Your task to perform on an android device: Open maps Image 0: 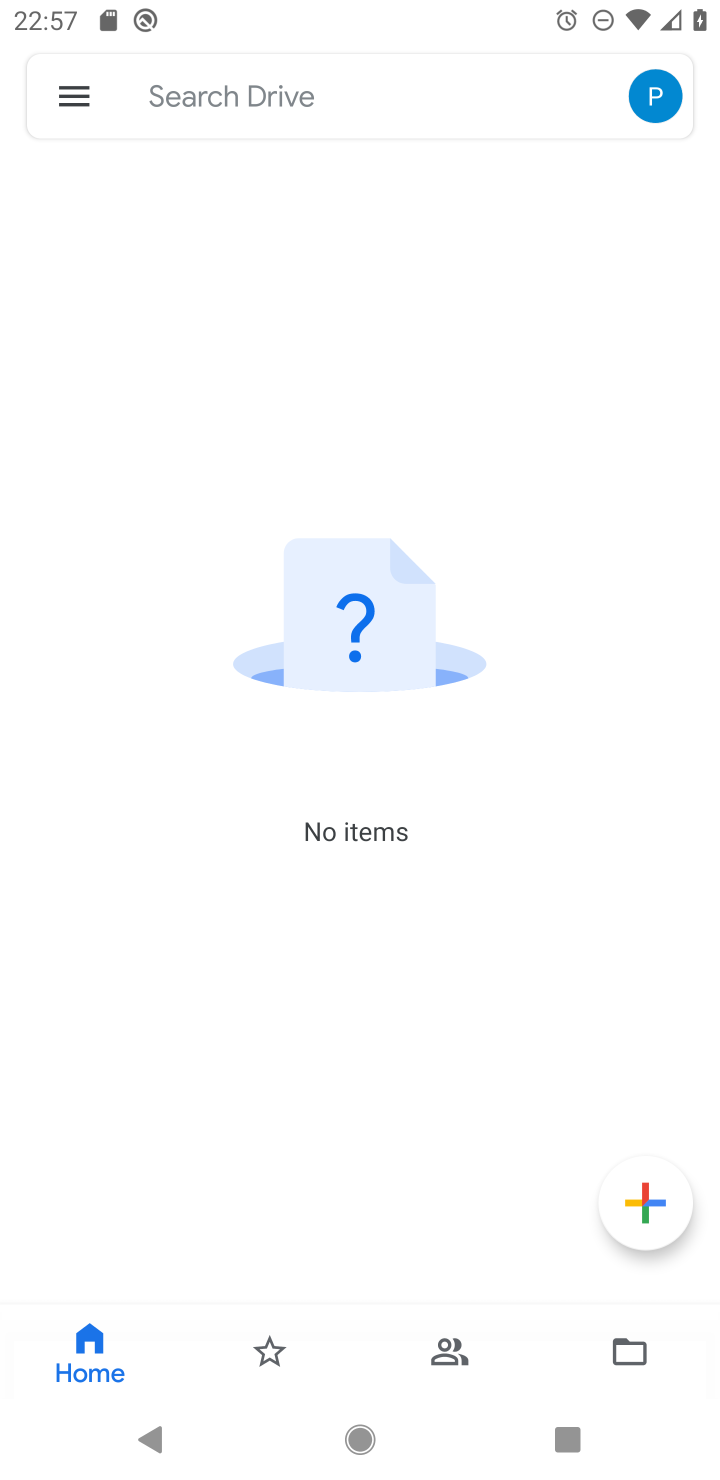
Step 0: press home button
Your task to perform on an android device: Open maps Image 1: 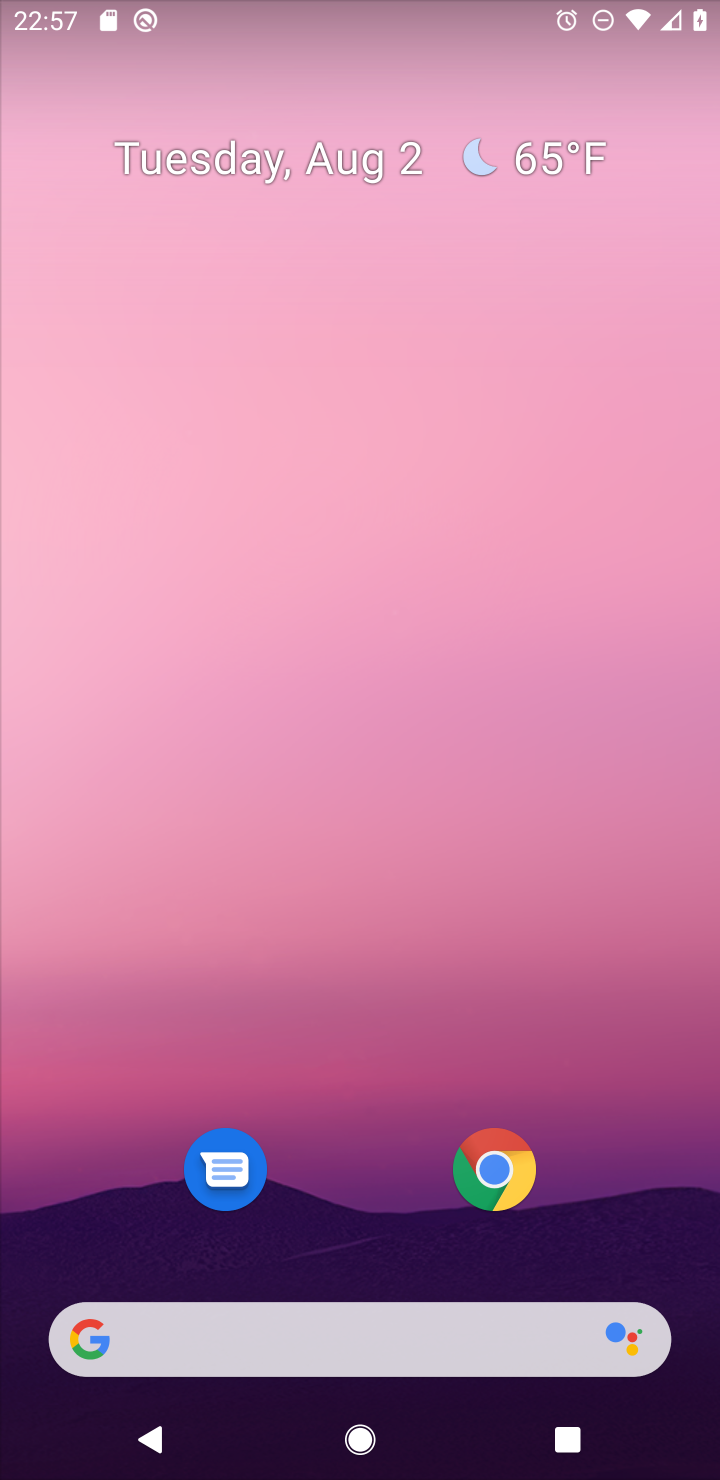
Step 1: drag from (362, 1034) to (366, 43)
Your task to perform on an android device: Open maps Image 2: 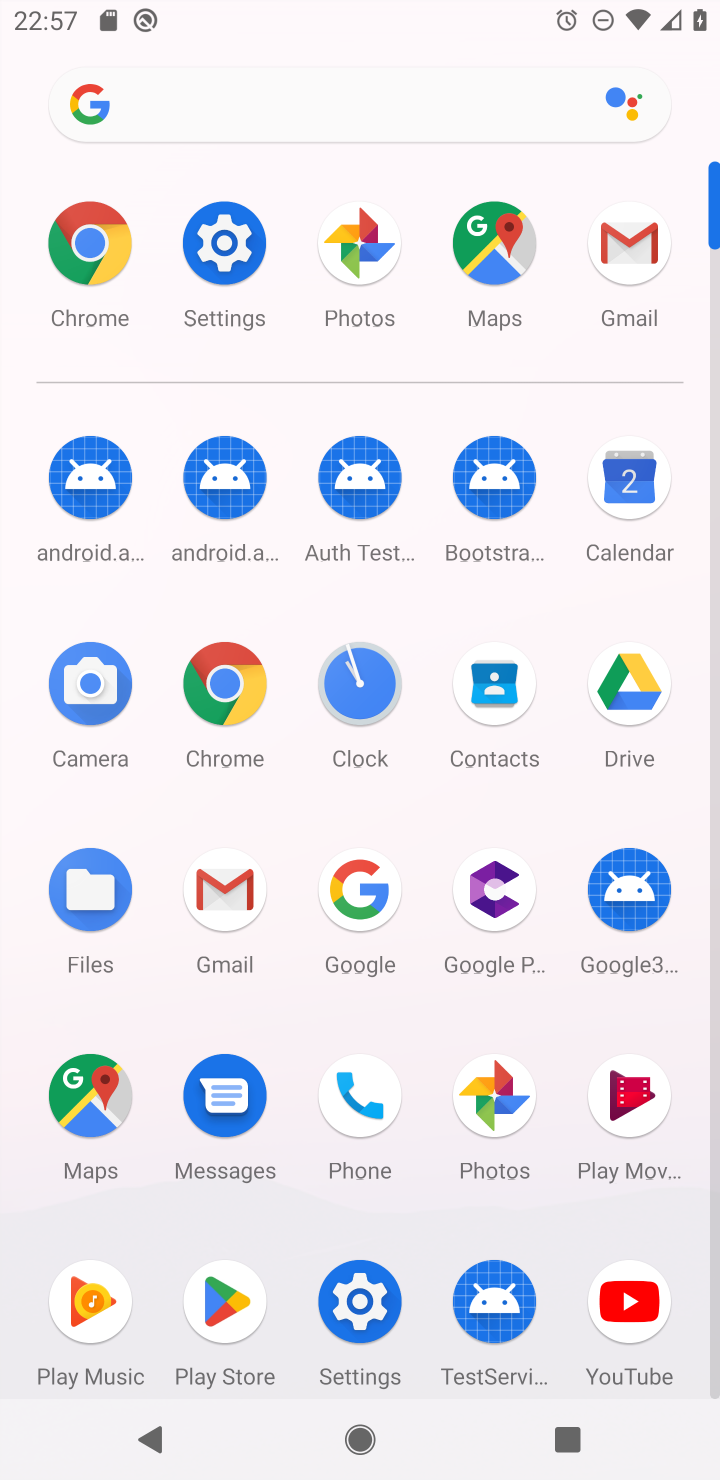
Step 2: click (88, 1084)
Your task to perform on an android device: Open maps Image 3: 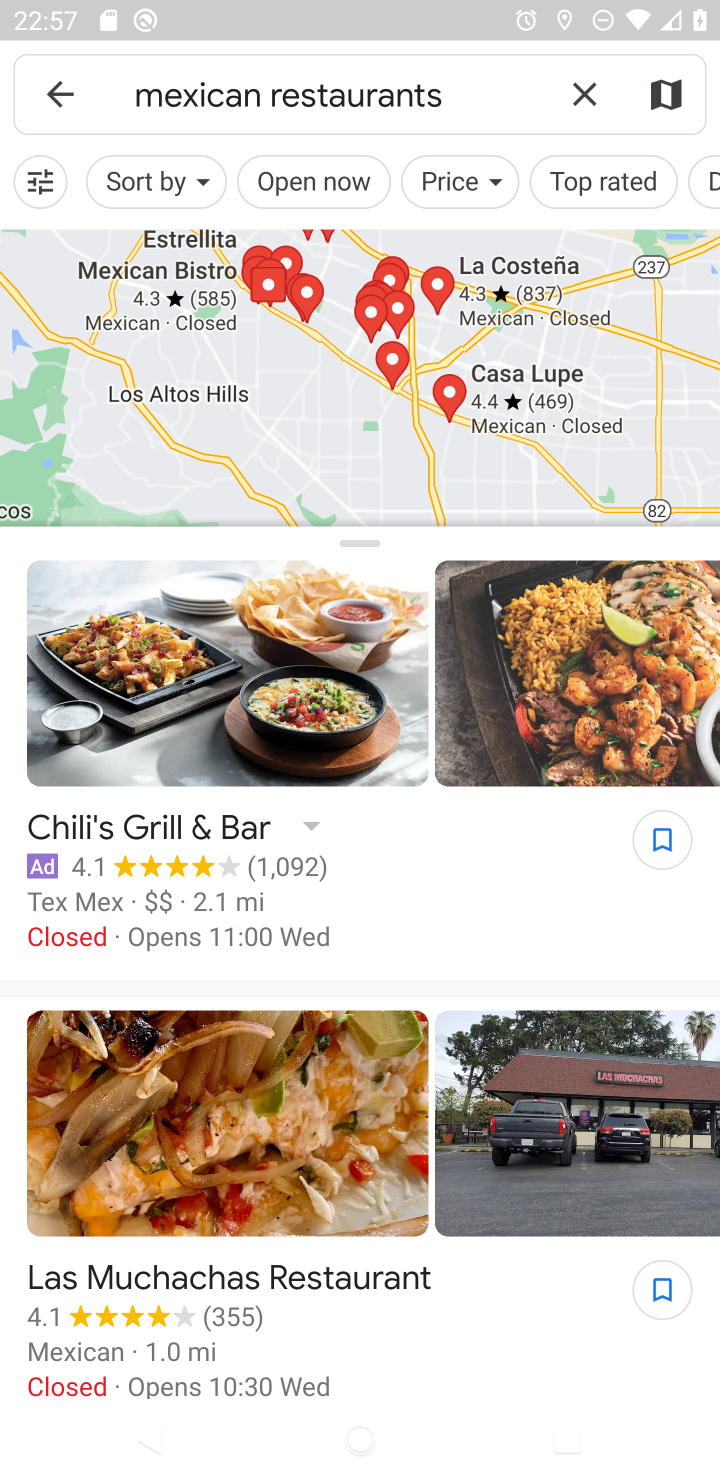
Step 3: task complete